Your task to perform on an android device: Open calendar and show me the second week of next month Image 0: 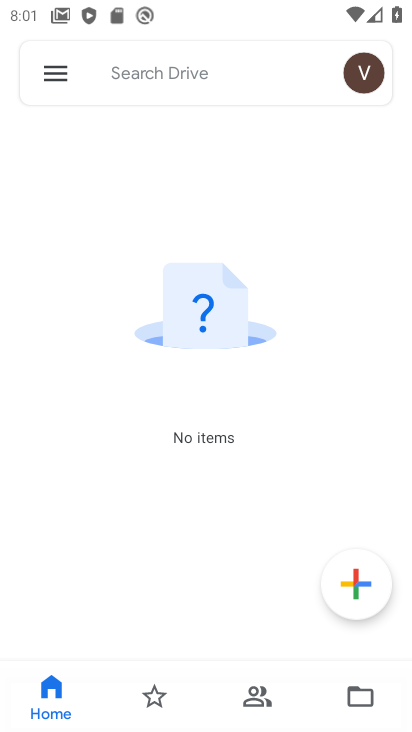
Step 0: press home button
Your task to perform on an android device: Open calendar and show me the second week of next month Image 1: 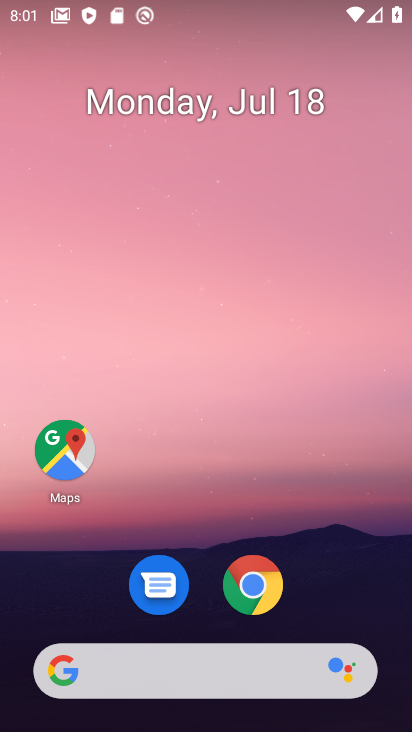
Step 1: drag from (236, 683) to (383, 138)
Your task to perform on an android device: Open calendar and show me the second week of next month Image 2: 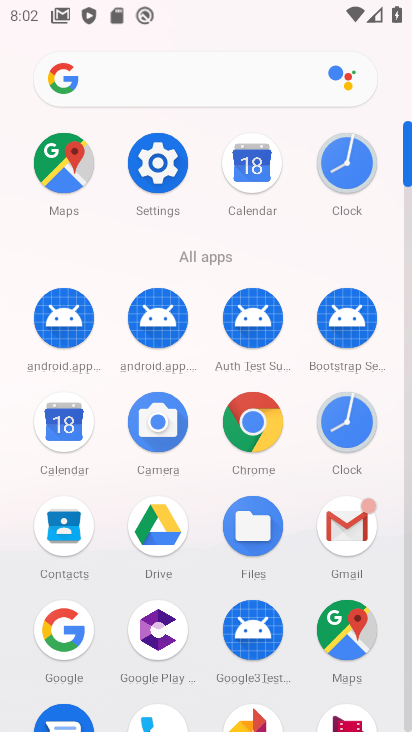
Step 2: click (68, 428)
Your task to perform on an android device: Open calendar and show me the second week of next month Image 3: 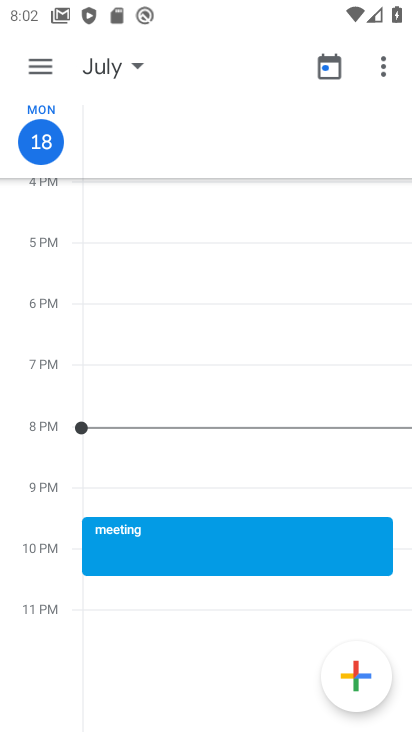
Step 3: click (95, 64)
Your task to perform on an android device: Open calendar and show me the second week of next month Image 4: 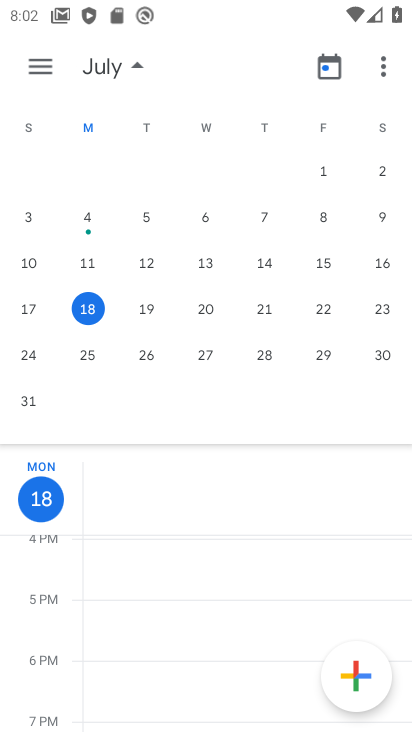
Step 4: drag from (316, 279) to (3, 319)
Your task to perform on an android device: Open calendar and show me the second week of next month Image 5: 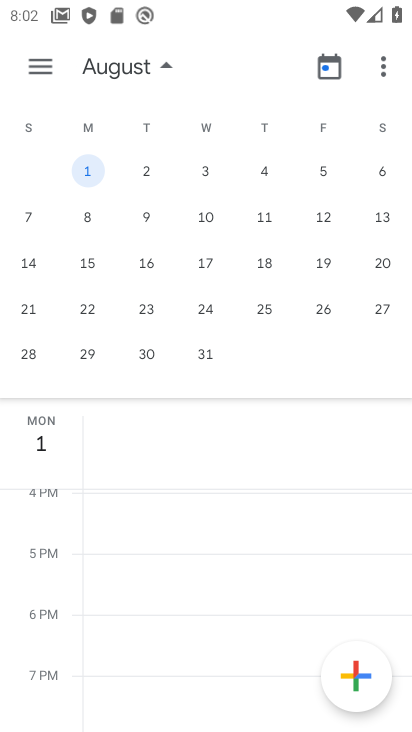
Step 5: click (24, 215)
Your task to perform on an android device: Open calendar and show me the second week of next month Image 6: 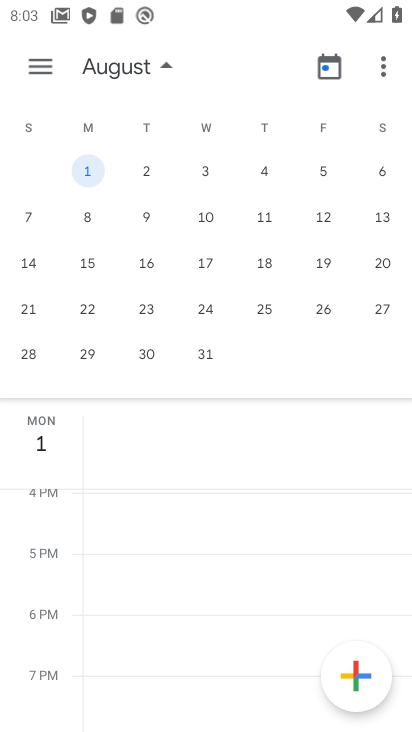
Step 6: click (30, 211)
Your task to perform on an android device: Open calendar and show me the second week of next month Image 7: 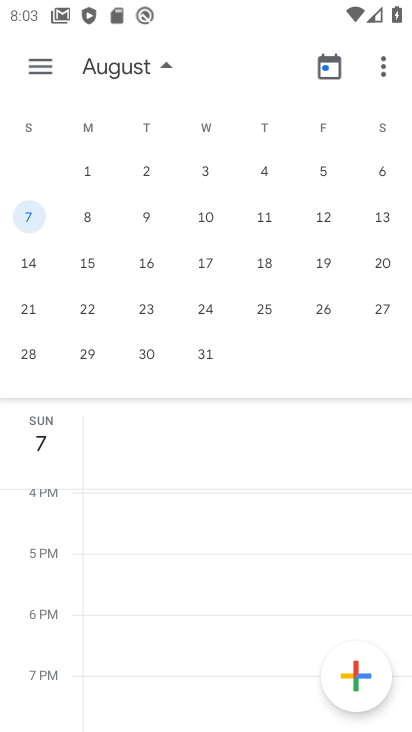
Step 7: click (36, 65)
Your task to perform on an android device: Open calendar and show me the second week of next month Image 8: 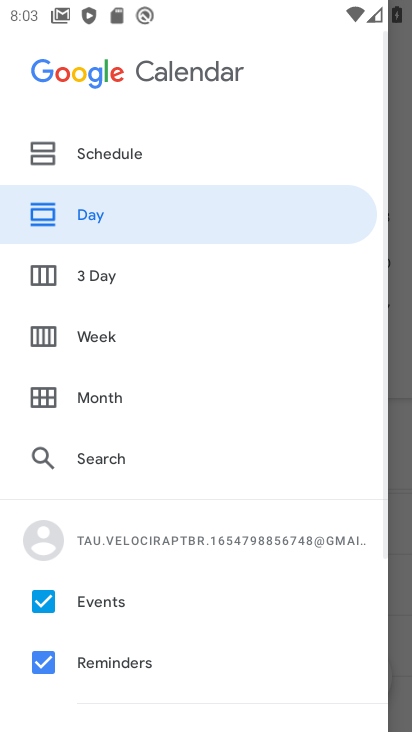
Step 8: click (101, 344)
Your task to perform on an android device: Open calendar and show me the second week of next month Image 9: 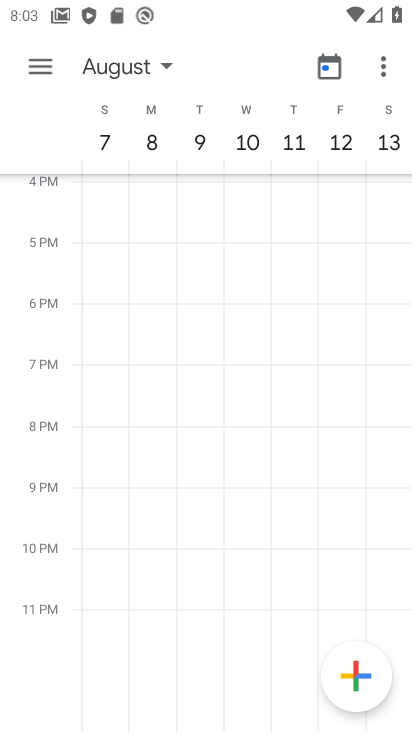
Step 9: task complete